Your task to perform on an android device: turn on bluetooth scan Image 0: 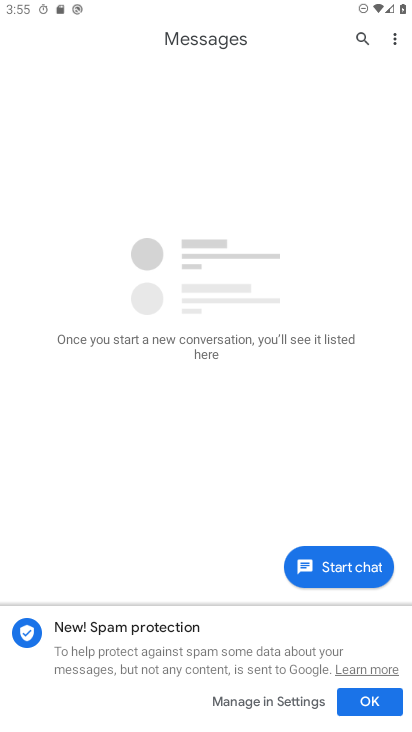
Step 0: press home button
Your task to perform on an android device: turn on bluetooth scan Image 1: 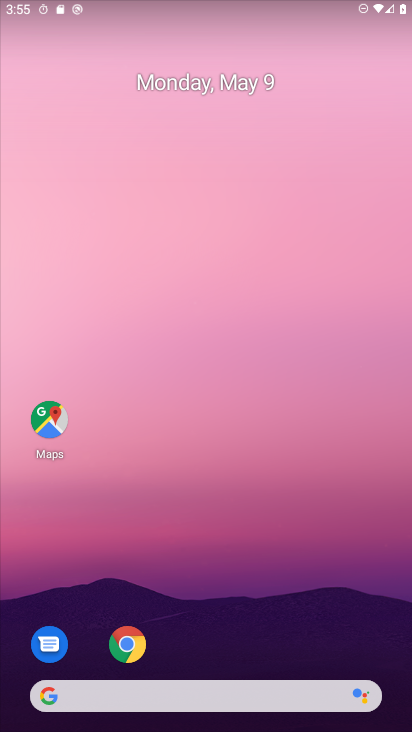
Step 1: drag from (166, 700) to (186, 246)
Your task to perform on an android device: turn on bluetooth scan Image 2: 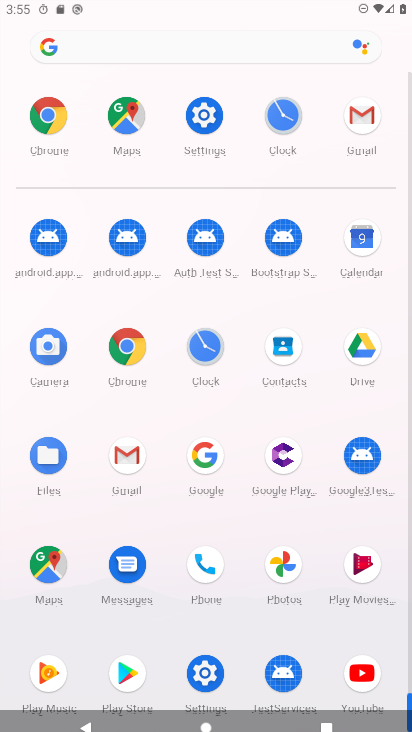
Step 2: click (190, 139)
Your task to perform on an android device: turn on bluetooth scan Image 3: 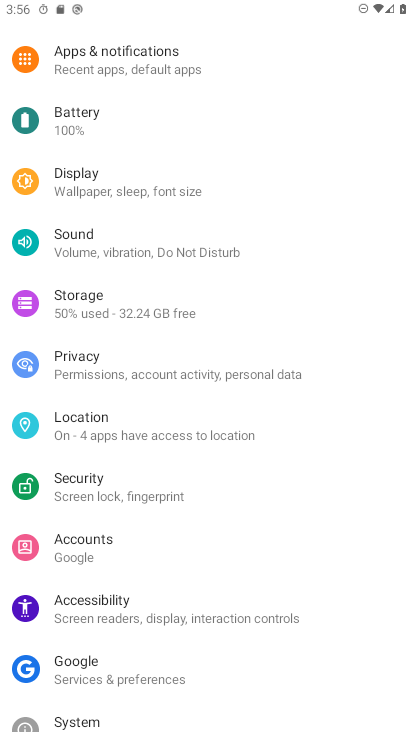
Step 3: click (82, 439)
Your task to perform on an android device: turn on bluetooth scan Image 4: 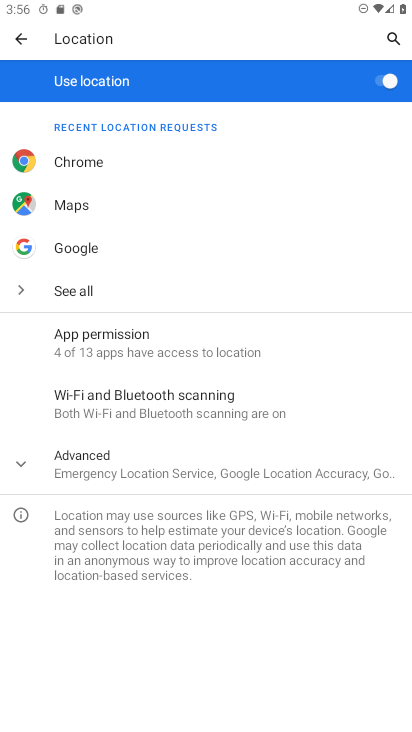
Step 4: click (113, 396)
Your task to perform on an android device: turn on bluetooth scan Image 5: 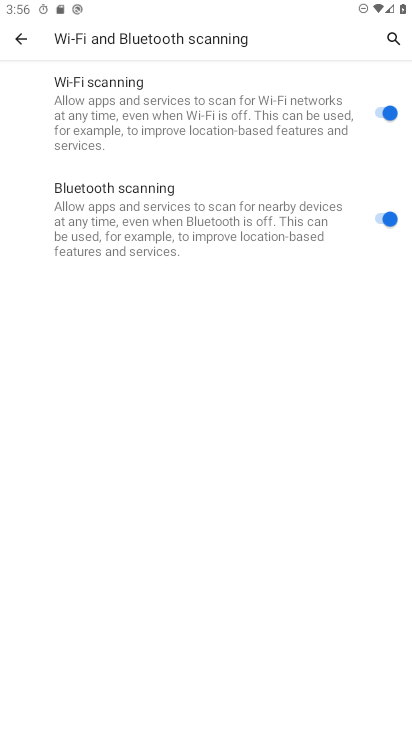
Step 5: task complete